Your task to perform on an android device: Open calendar and show me the fourth week of next month Image 0: 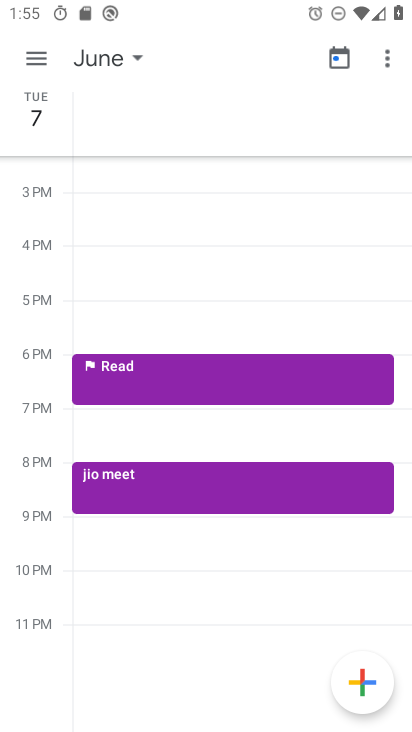
Step 0: press home button
Your task to perform on an android device: Open calendar and show me the fourth week of next month Image 1: 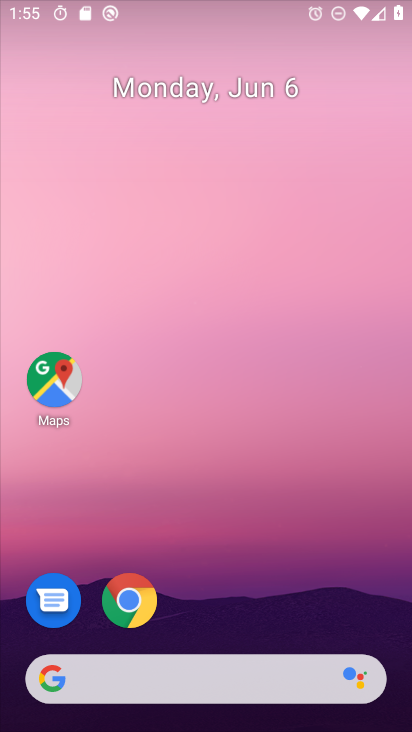
Step 1: drag from (236, 598) to (225, 55)
Your task to perform on an android device: Open calendar and show me the fourth week of next month Image 2: 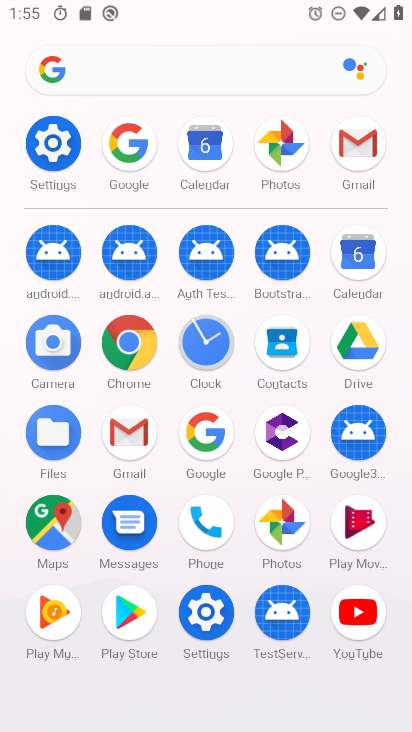
Step 2: click (339, 240)
Your task to perform on an android device: Open calendar and show me the fourth week of next month Image 3: 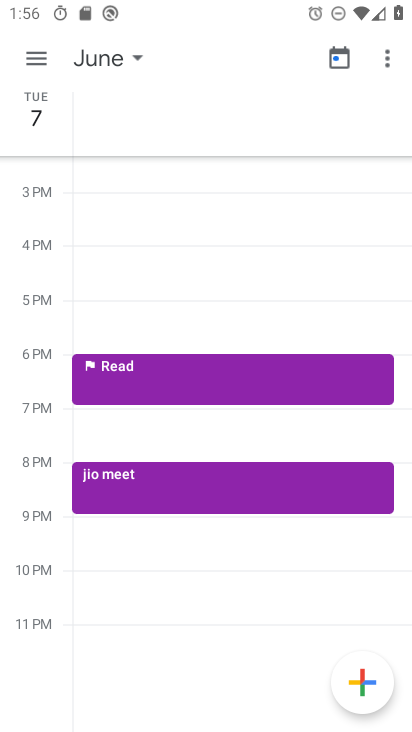
Step 3: click (136, 62)
Your task to perform on an android device: Open calendar and show me the fourth week of next month Image 4: 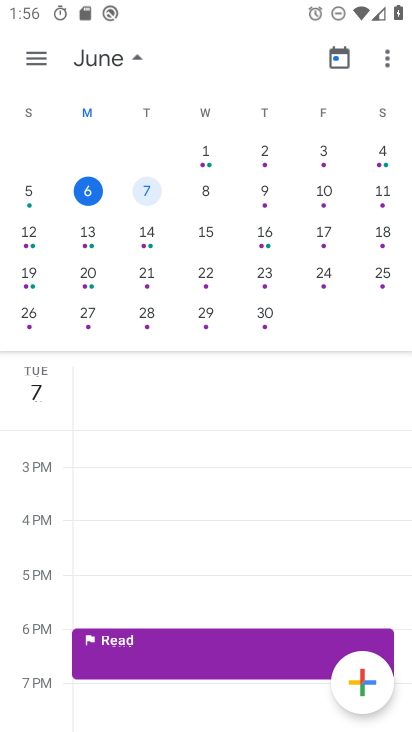
Step 4: drag from (331, 231) to (68, 236)
Your task to perform on an android device: Open calendar and show me the fourth week of next month Image 5: 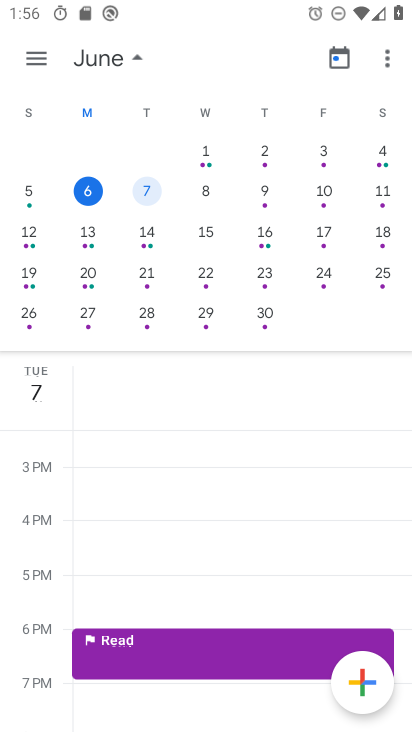
Step 5: click (34, 272)
Your task to perform on an android device: Open calendar and show me the fourth week of next month Image 6: 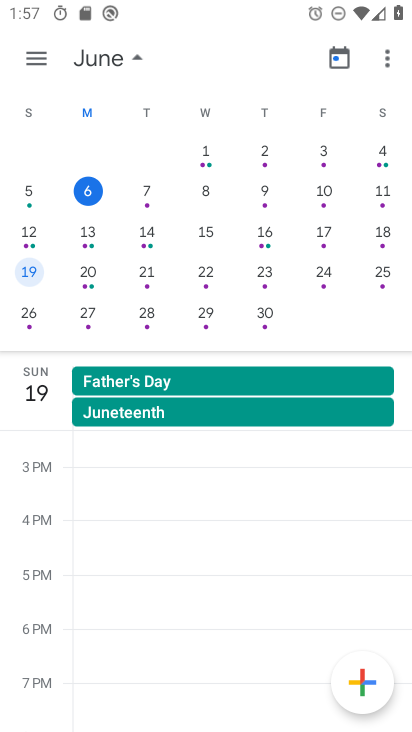
Step 6: click (21, 264)
Your task to perform on an android device: Open calendar and show me the fourth week of next month Image 7: 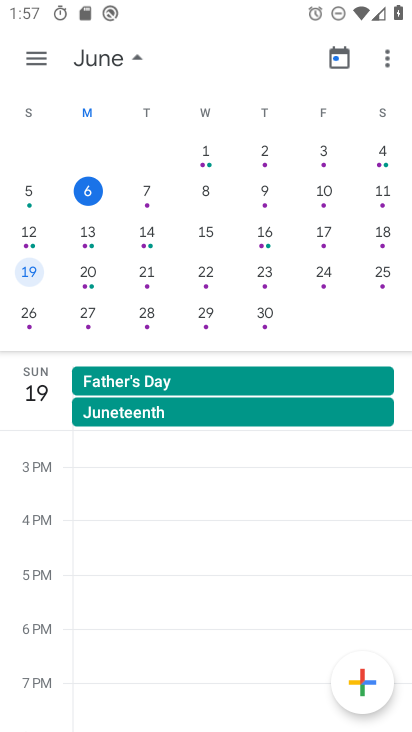
Step 7: task complete